Your task to perform on an android device: turn off smart reply in the gmail app Image 0: 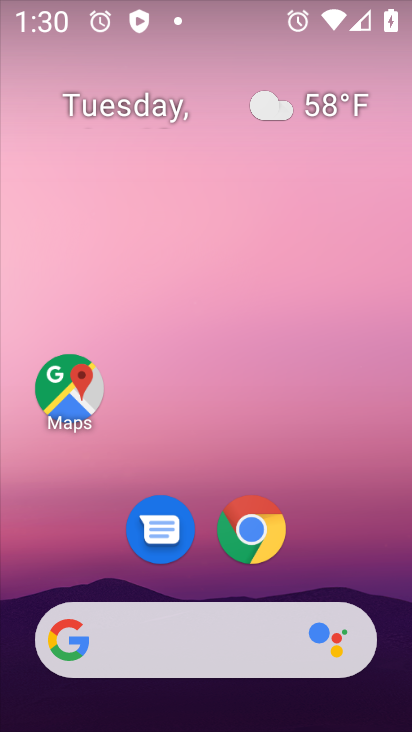
Step 0: drag from (248, 580) to (273, 145)
Your task to perform on an android device: turn off smart reply in the gmail app Image 1: 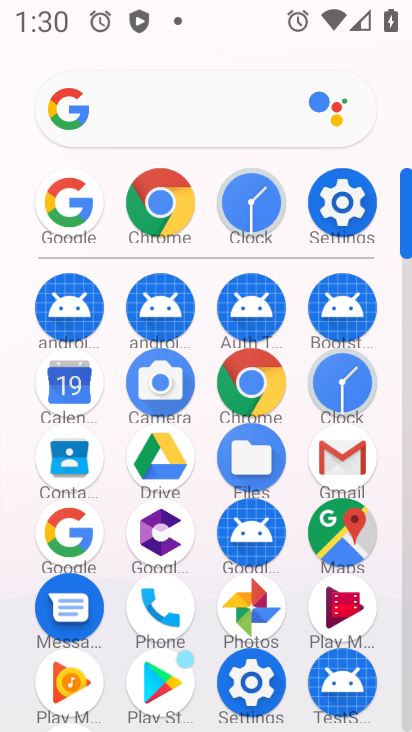
Step 1: click (346, 463)
Your task to perform on an android device: turn off smart reply in the gmail app Image 2: 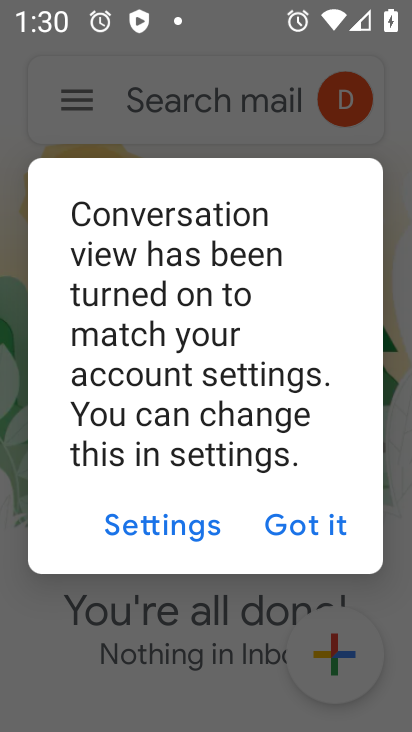
Step 2: click (325, 522)
Your task to perform on an android device: turn off smart reply in the gmail app Image 3: 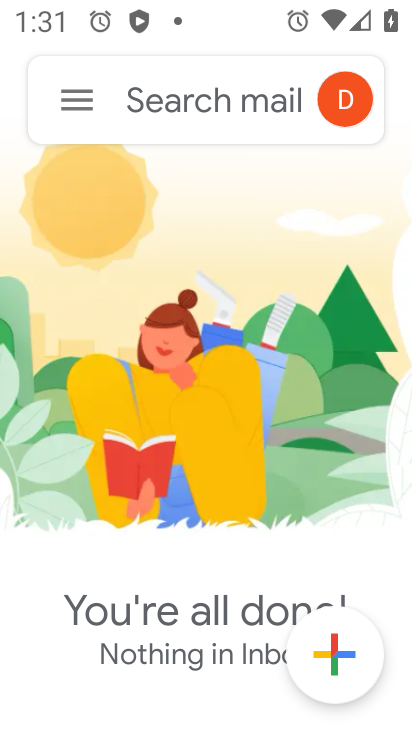
Step 3: click (82, 102)
Your task to perform on an android device: turn off smart reply in the gmail app Image 4: 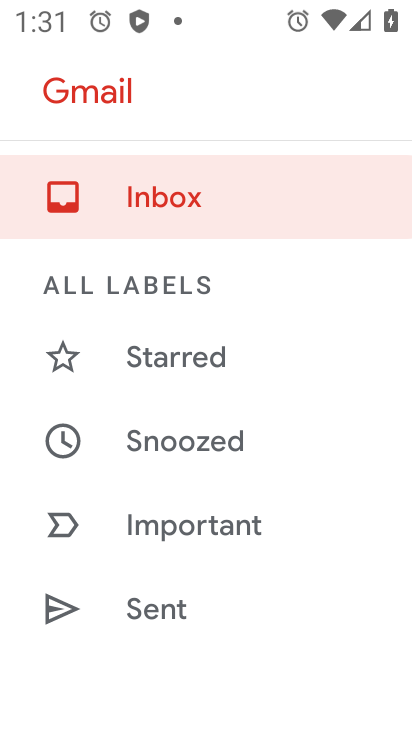
Step 4: drag from (172, 565) to (258, 174)
Your task to perform on an android device: turn off smart reply in the gmail app Image 5: 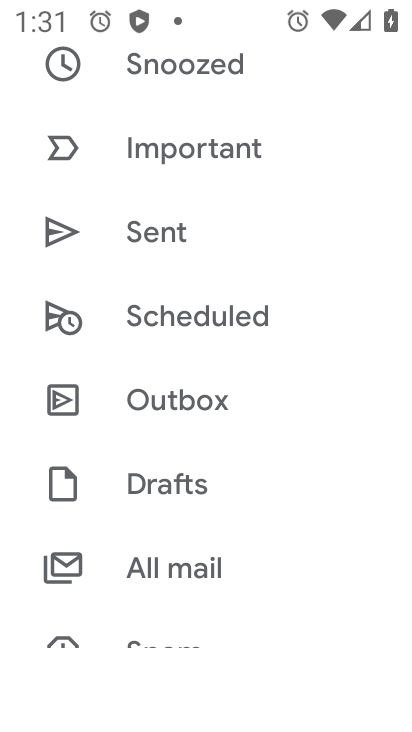
Step 5: drag from (236, 470) to (302, 185)
Your task to perform on an android device: turn off smart reply in the gmail app Image 6: 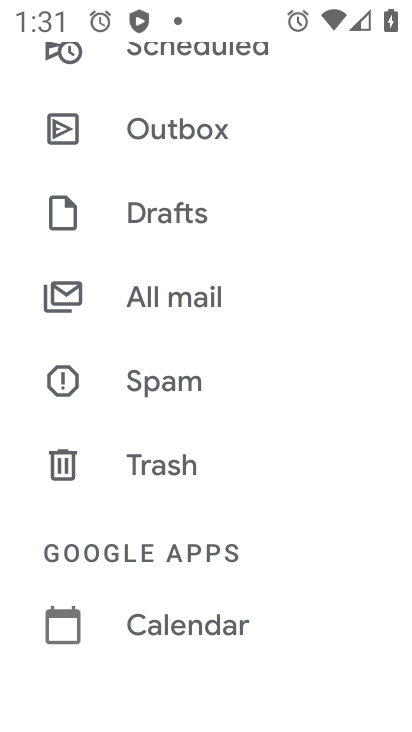
Step 6: drag from (248, 493) to (330, 150)
Your task to perform on an android device: turn off smart reply in the gmail app Image 7: 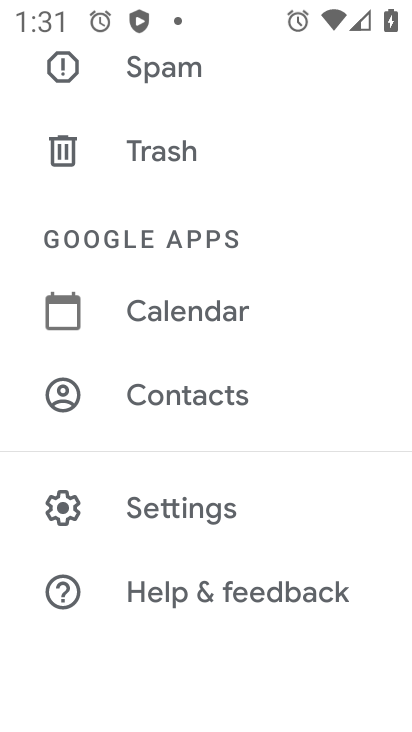
Step 7: click (117, 532)
Your task to perform on an android device: turn off smart reply in the gmail app Image 8: 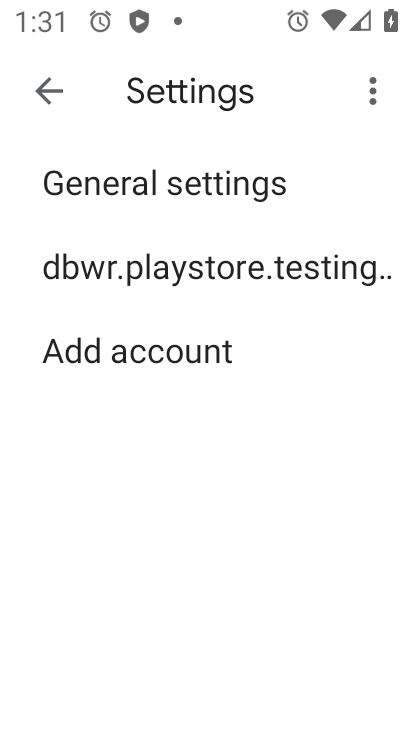
Step 8: click (230, 294)
Your task to perform on an android device: turn off smart reply in the gmail app Image 9: 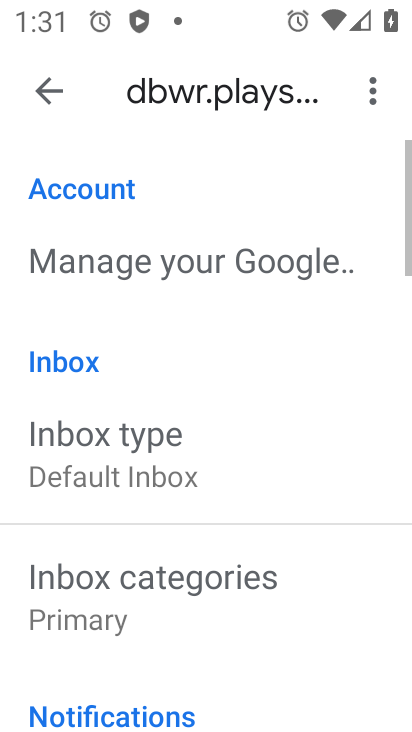
Step 9: drag from (199, 573) to (219, 241)
Your task to perform on an android device: turn off smart reply in the gmail app Image 10: 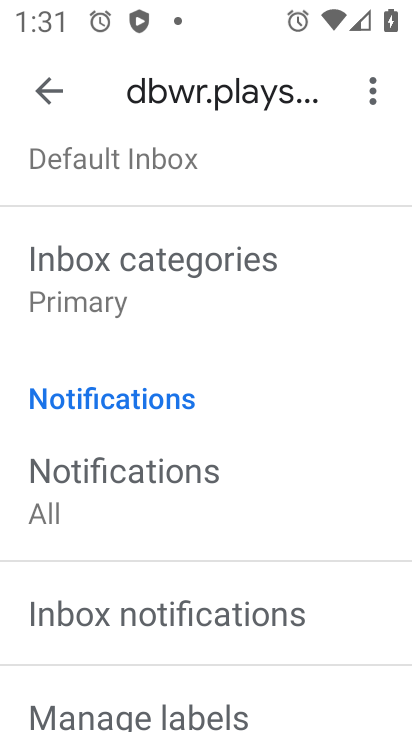
Step 10: drag from (233, 528) to (270, 97)
Your task to perform on an android device: turn off smart reply in the gmail app Image 11: 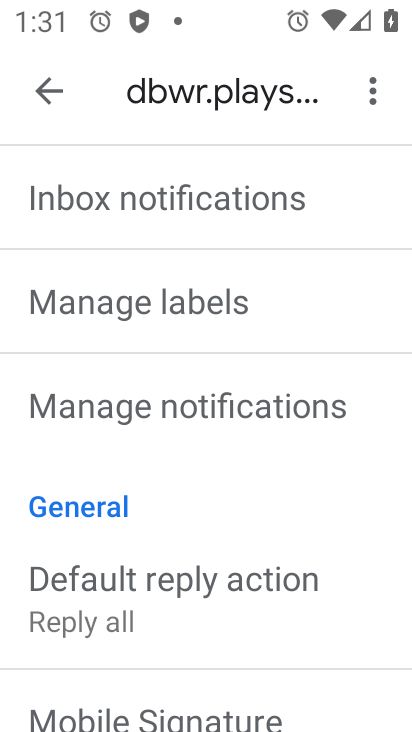
Step 11: drag from (247, 465) to (319, 208)
Your task to perform on an android device: turn off smart reply in the gmail app Image 12: 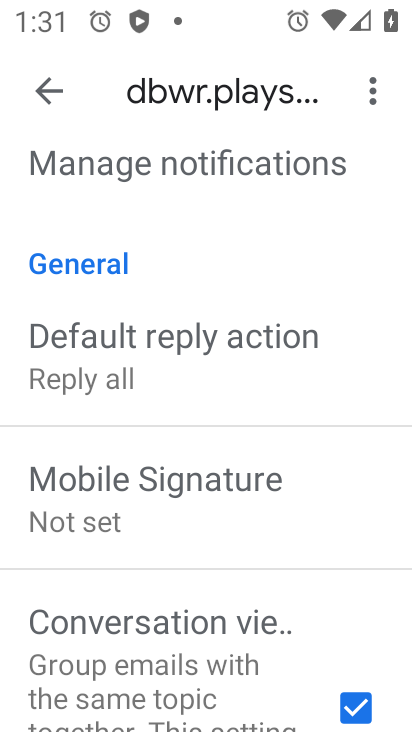
Step 12: drag from (241, 547) to (283, 216)
Your task to perform on an android device: turn off smart reply in the gmail app Image 13: 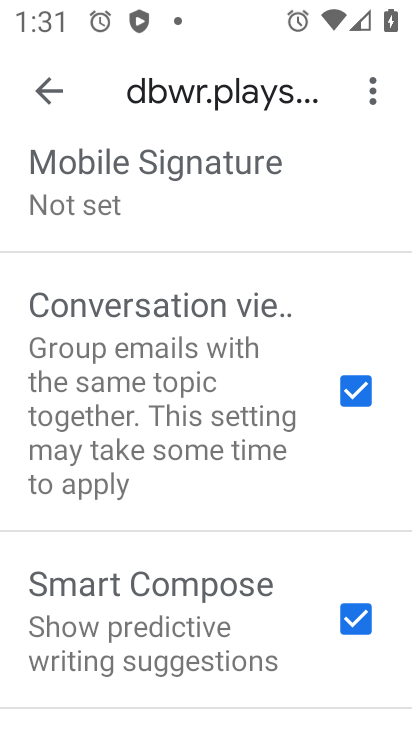
Step 13: drag from (208, 579) to (251, 382)
Your task to perform on an android device: turn off smart reply in the gmail app Image 14: 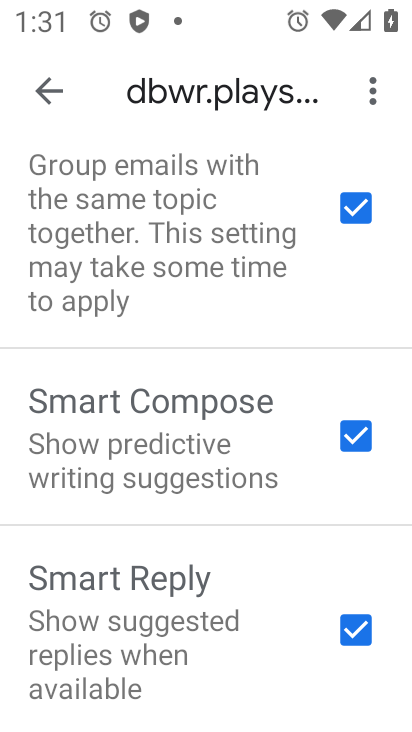
Step 14: click (354, 640)
Your task to perform on an android device: turn off smart reply in the gmail app Image 15: 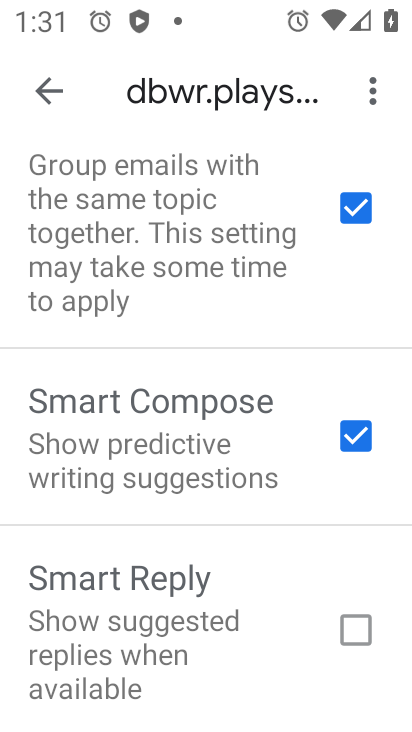
Step 15: task complete